Your task to perform on an android device: Go to Wikipedia Image 0: 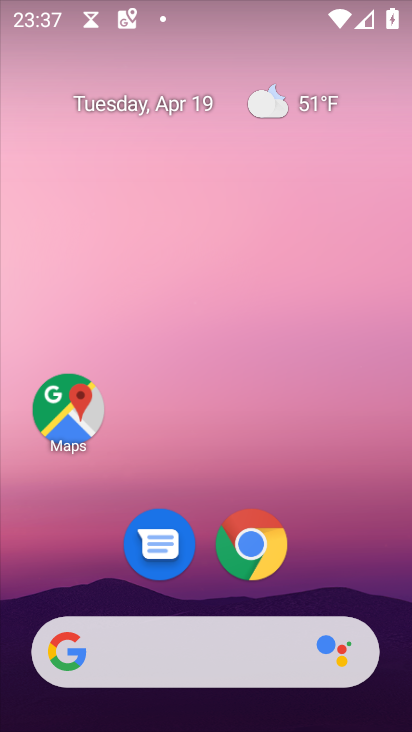
Step 0: click (250, 535)
Your task to perform on an android device: Go to Wikipedia Image 1: 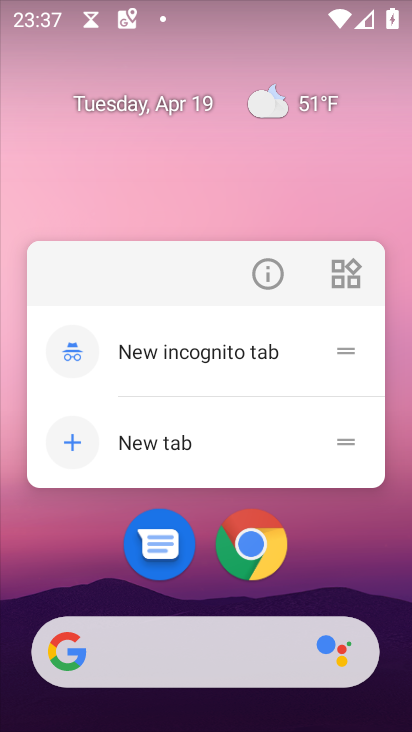
Step 1: click (247, 530)
Your task to perform on an android device: Go to Wikipedia Image 2: 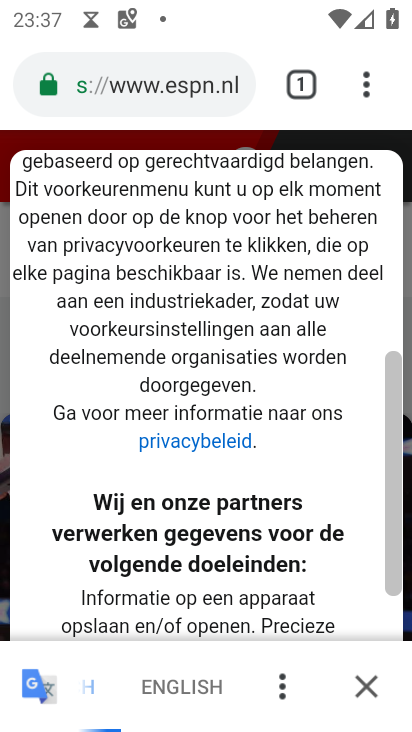
Step 2: click (96, 90)
Your task to perform on an android device: Go to Wikipedia Image 3: 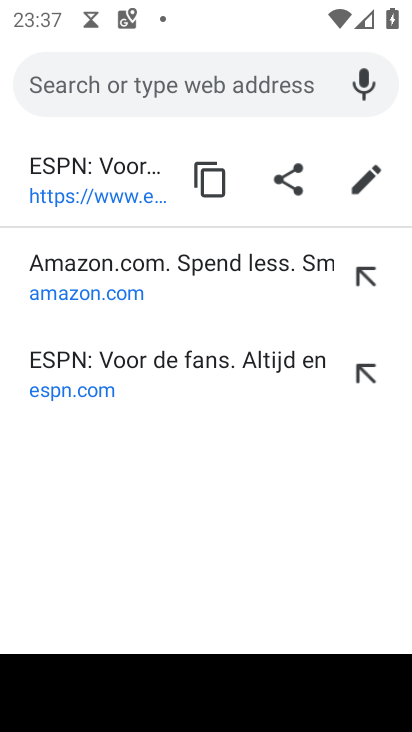
Step 3: type "wikipedia"
Your task to perform on an android device: Go to Wikipedia Image 4: 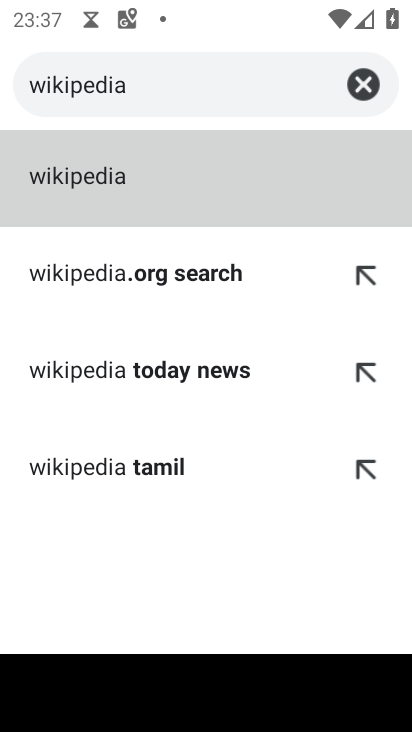
Step 4: click (76, 184)
Your task to perform on an android device: Go to Wikipedia Image 5: 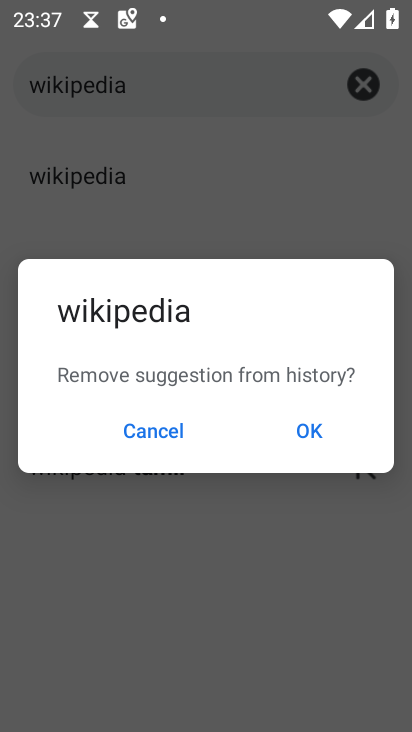
Step 5: click (155, 428)
Your task to perform on an android device: Go to Wikipedia Image 6: 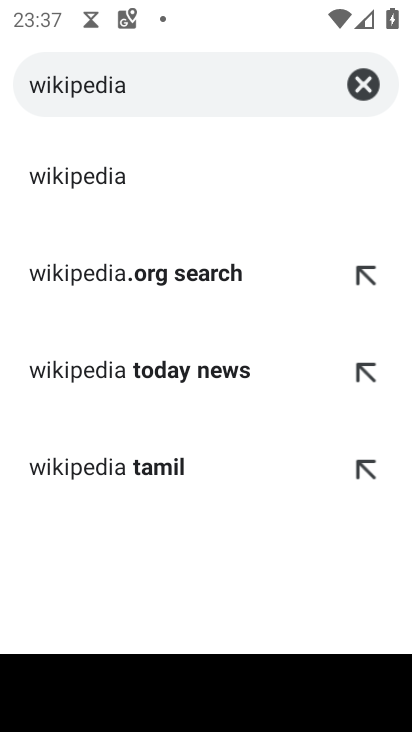
Step 6: click (102, 189)
Your task to perform on an android device: Go to Wikipedia Image 7: 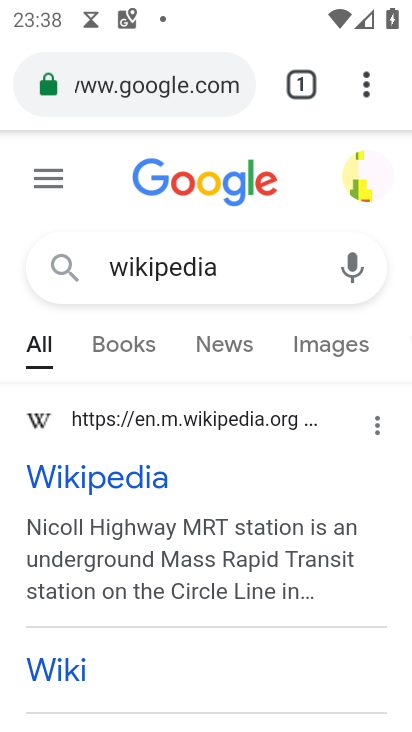
Step 7: click (102, 471)
Your task to perform on an android device: Go to Wikipedia Image 8: 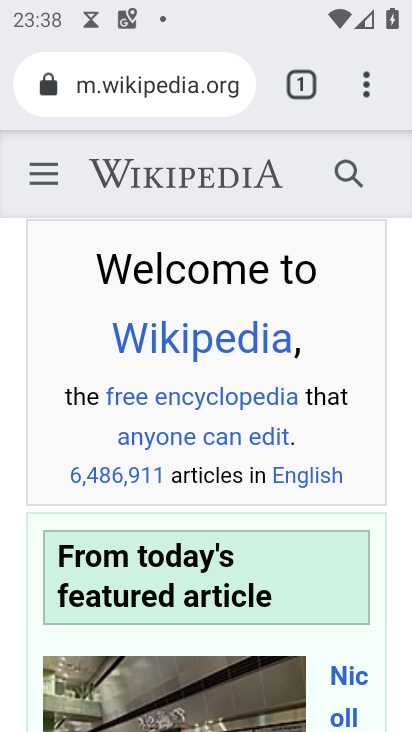
Step 8: task complete